Your task to perform on an android device: open sync settings in chrome Image 0: 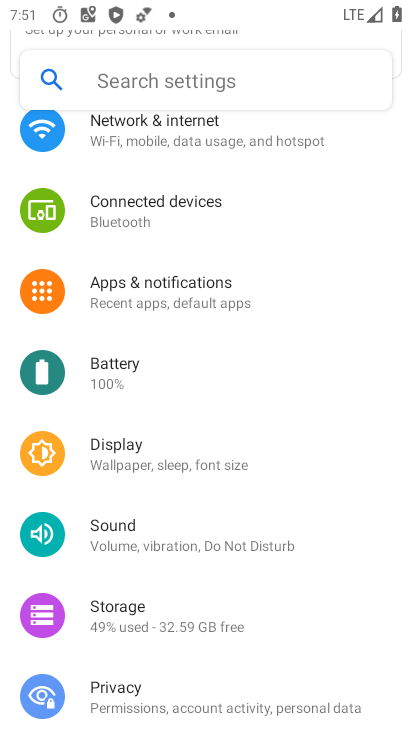
Step 0: press home button
Your task to perform on an android device: open sync settings in chrome Image 1: 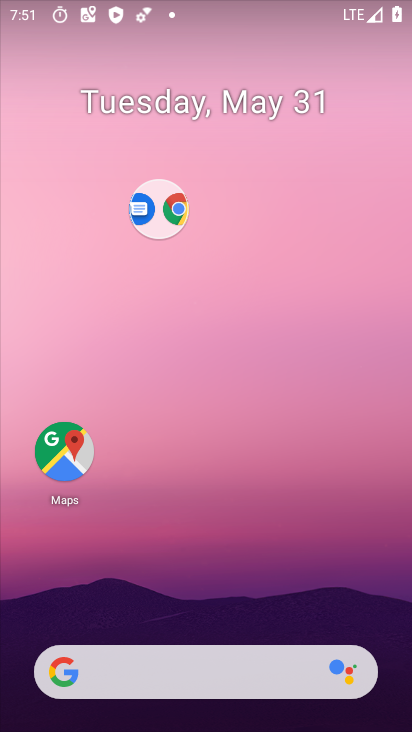
Step 1: drag from (213, 604) to (202, 0)
Your task to perform on an android device: open sync settings in chrome Image 2: 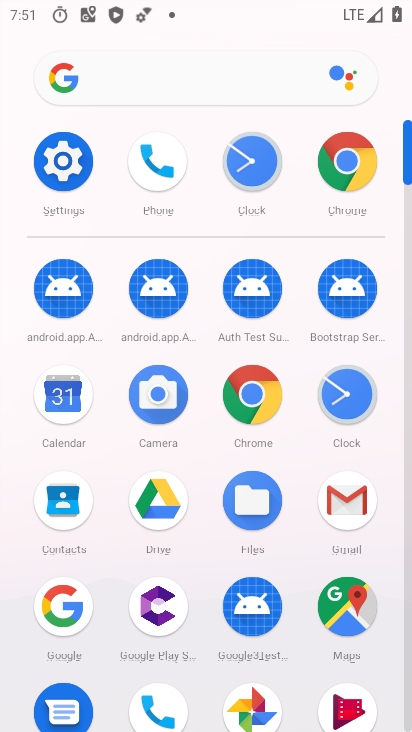
Step 2: click (350, 160)
Your task to perform on an android device: open sync settings in chrome Image 3: 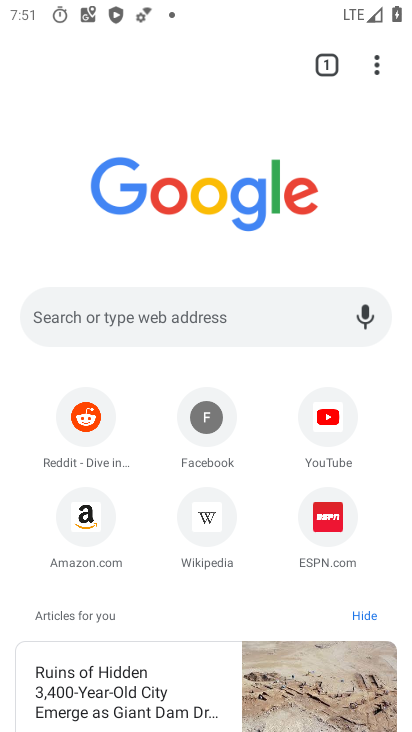
Step 3: click (382, 67)
Your task to perform on an android device: open sync settings in chrome Image 4: 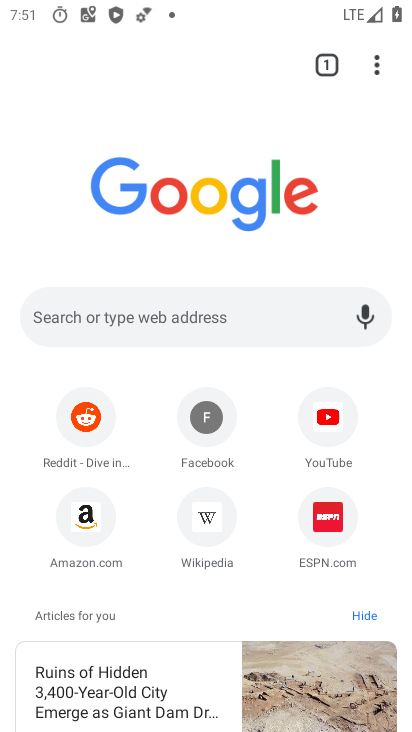
Step 4: click (384, 61)
Your task to perform on an android device: open sync settings in chrome Image 5: 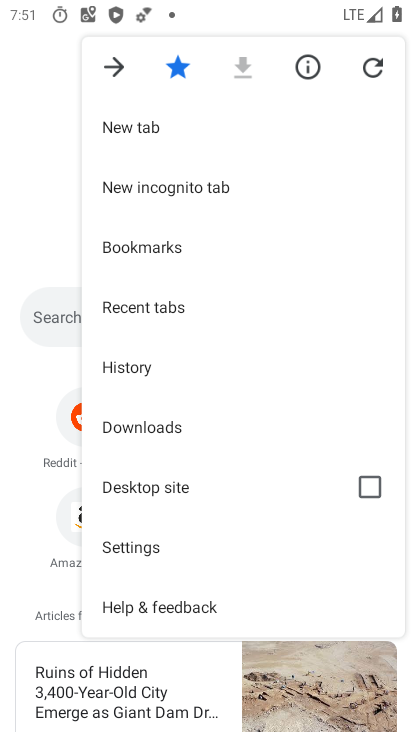
Step 5: click (138, 534)
Your task to perform on an android device: open sync settings in chrome Image 6: 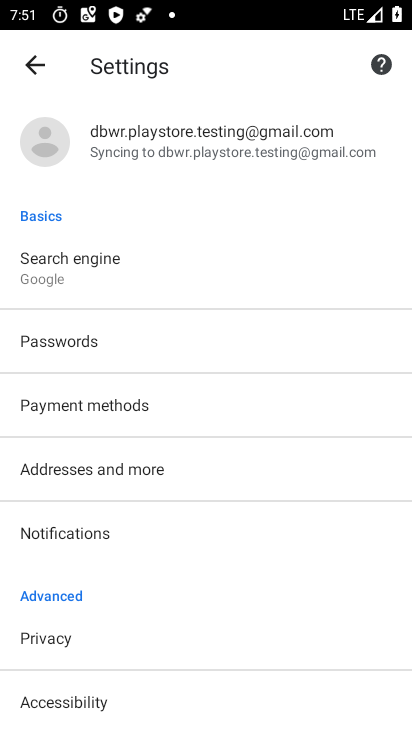
Step 6: drag from (138, 534) to (205, 171)
Your task to perform on an android device: open sync settings in chrome Image 7: 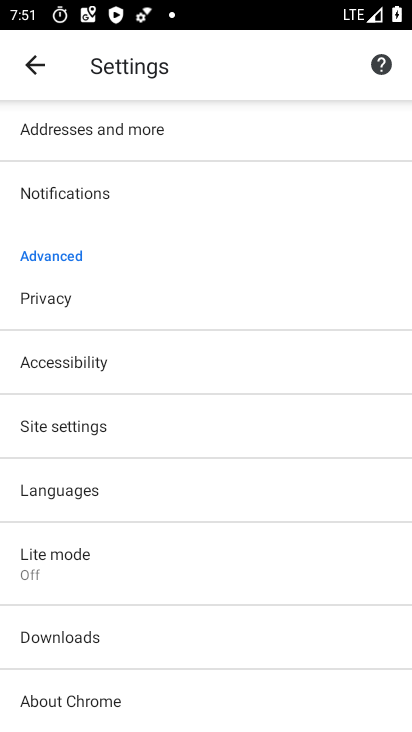
Step 7: drag from (143, 234) to (123, 730)
Your task to perform on an android device: open sync settings in chrome Image 8: 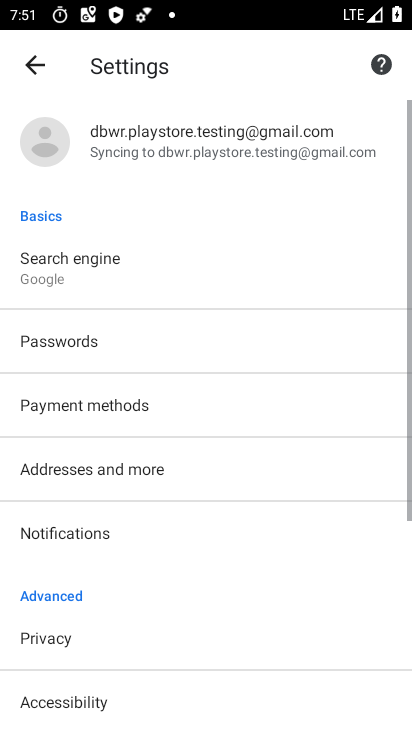
Step 8: click (198, 143)
Your task to perform on an android device: open sync settings in chrome Image 9: 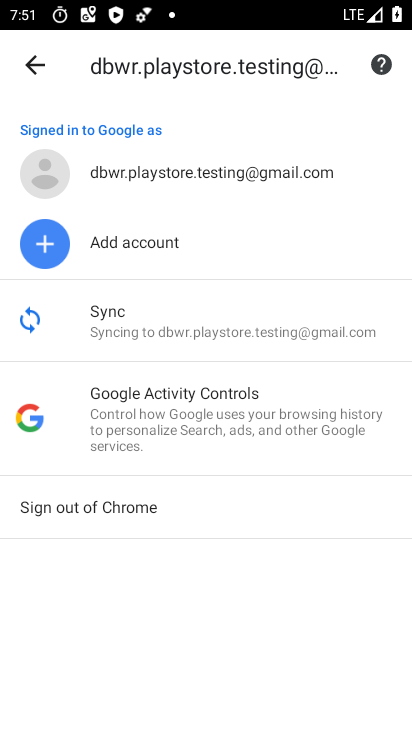
Step 9: click (147, 333)
Your task to perform on an android device: open sync settings in chrome Image 10: 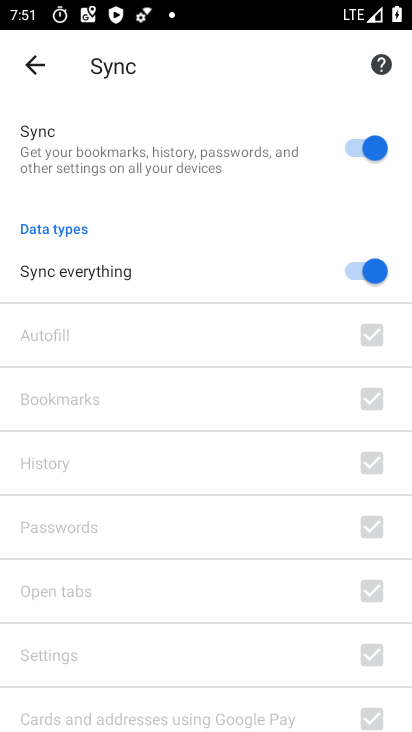
Step 10: task complete